Your task to perform on an android device: Go to Reddit.com Image 0: 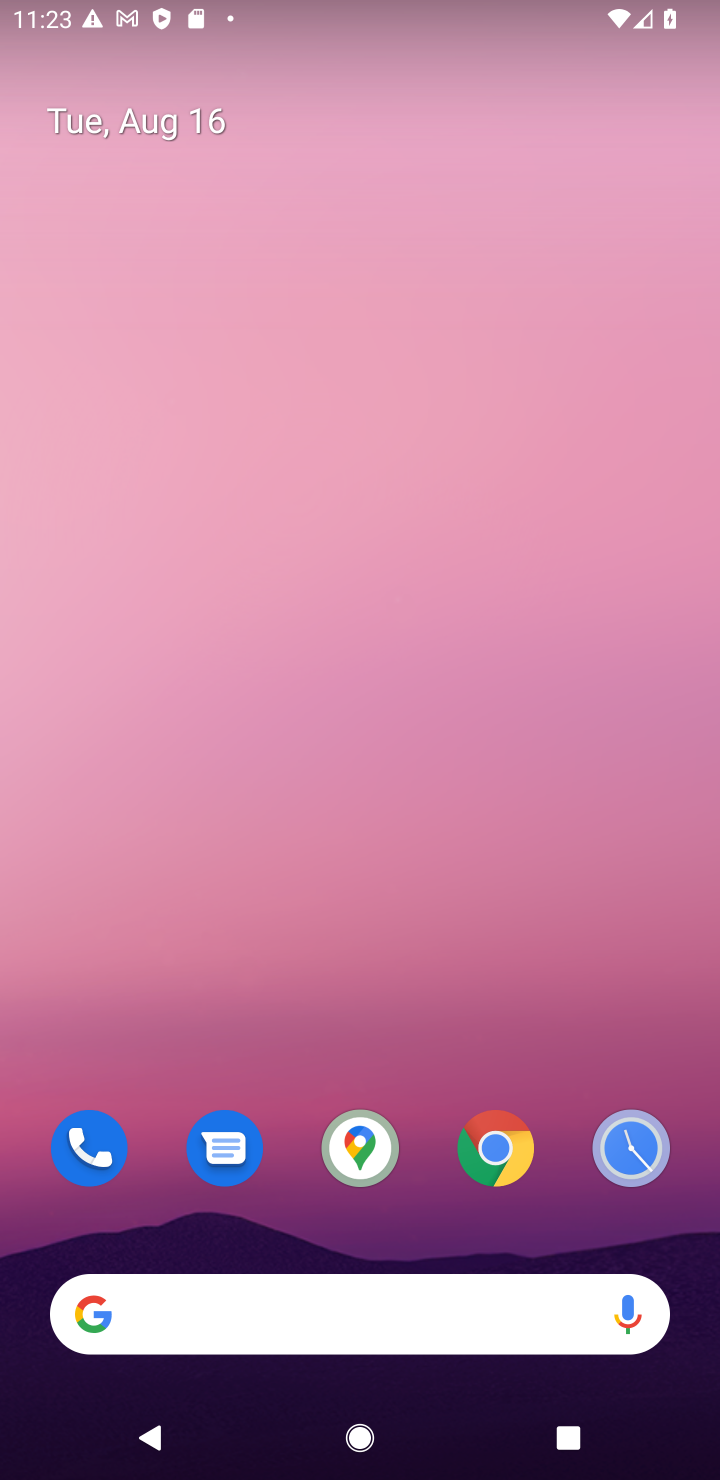
Step 0: press home button
Your task to perform on an android device: Go to Reddit.com Image 1: 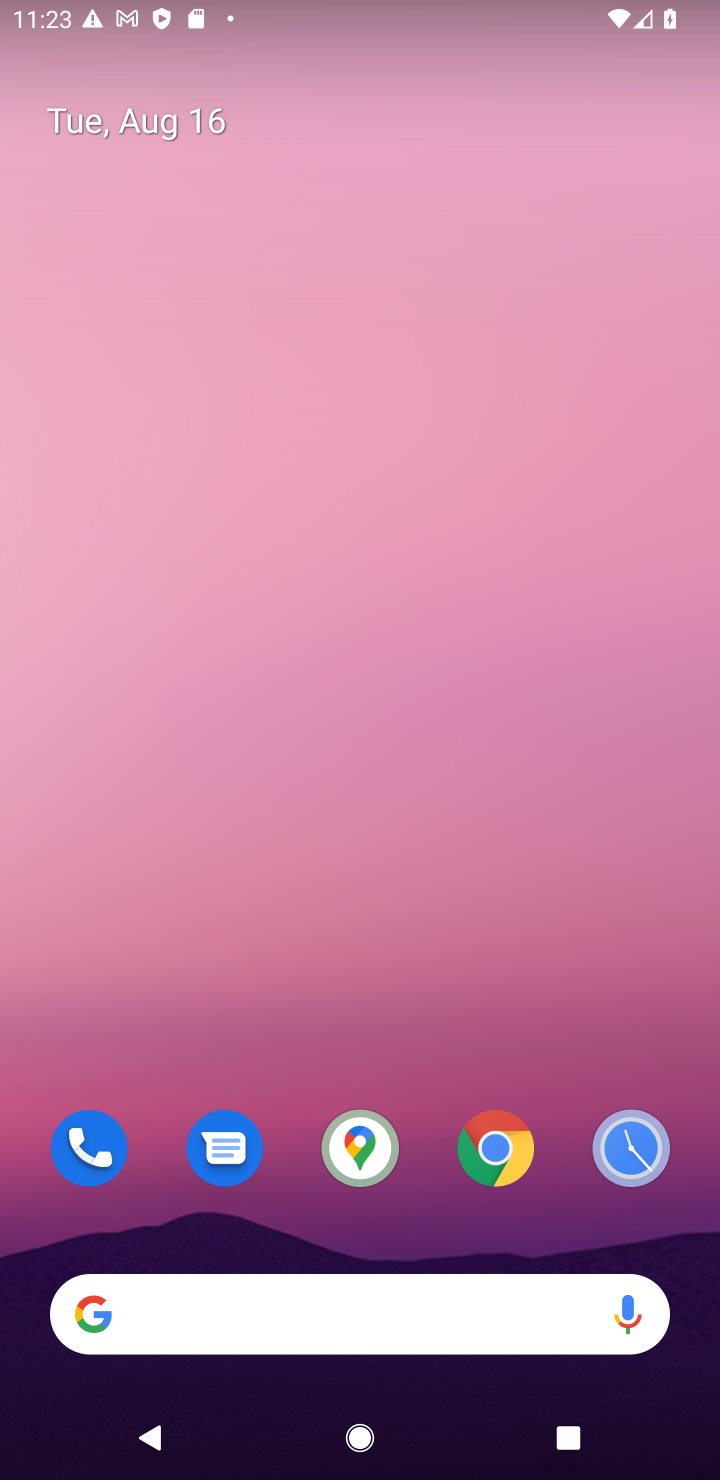
Step 1: press home button
Your task to perform on an android device: Go to Reddit.com Image 2: 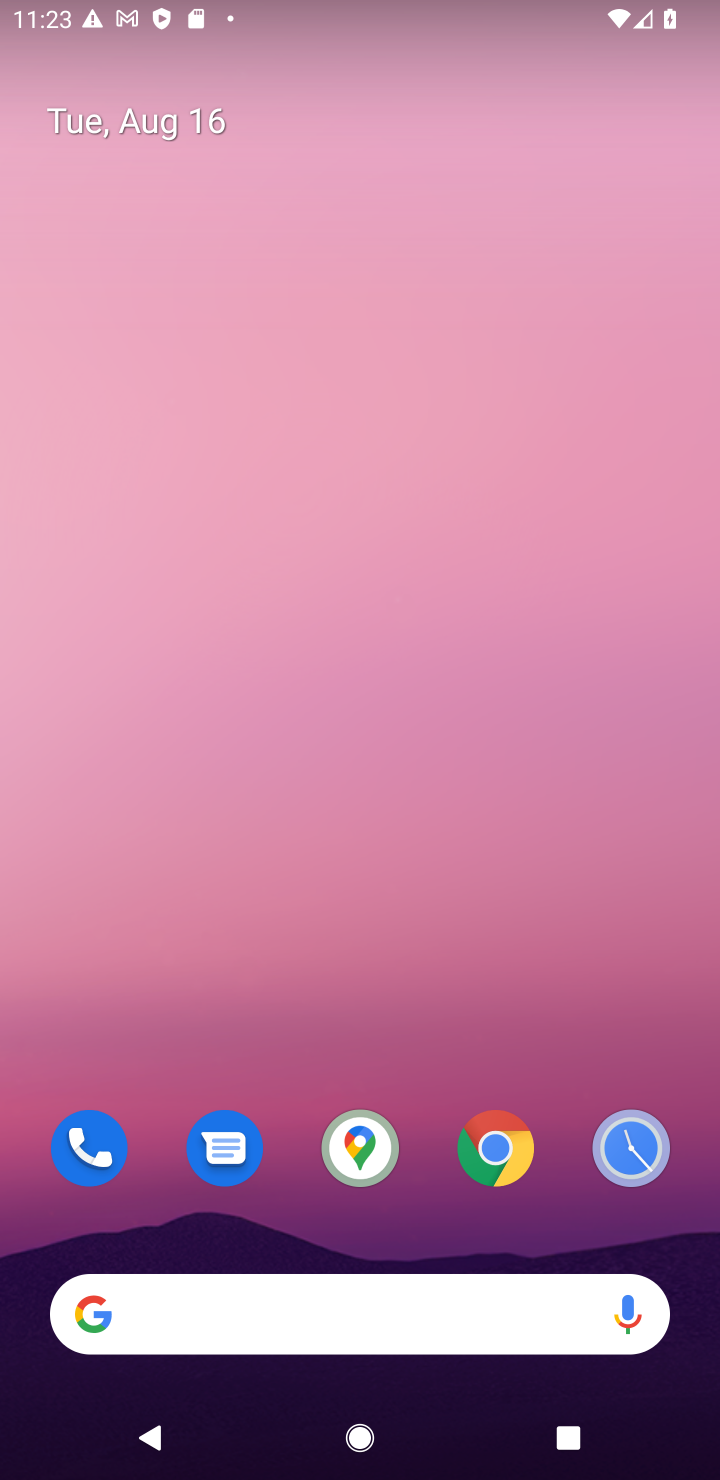
Step 2: press home button
Your task to perform on an android device: Go to Reddit.com Image 3: 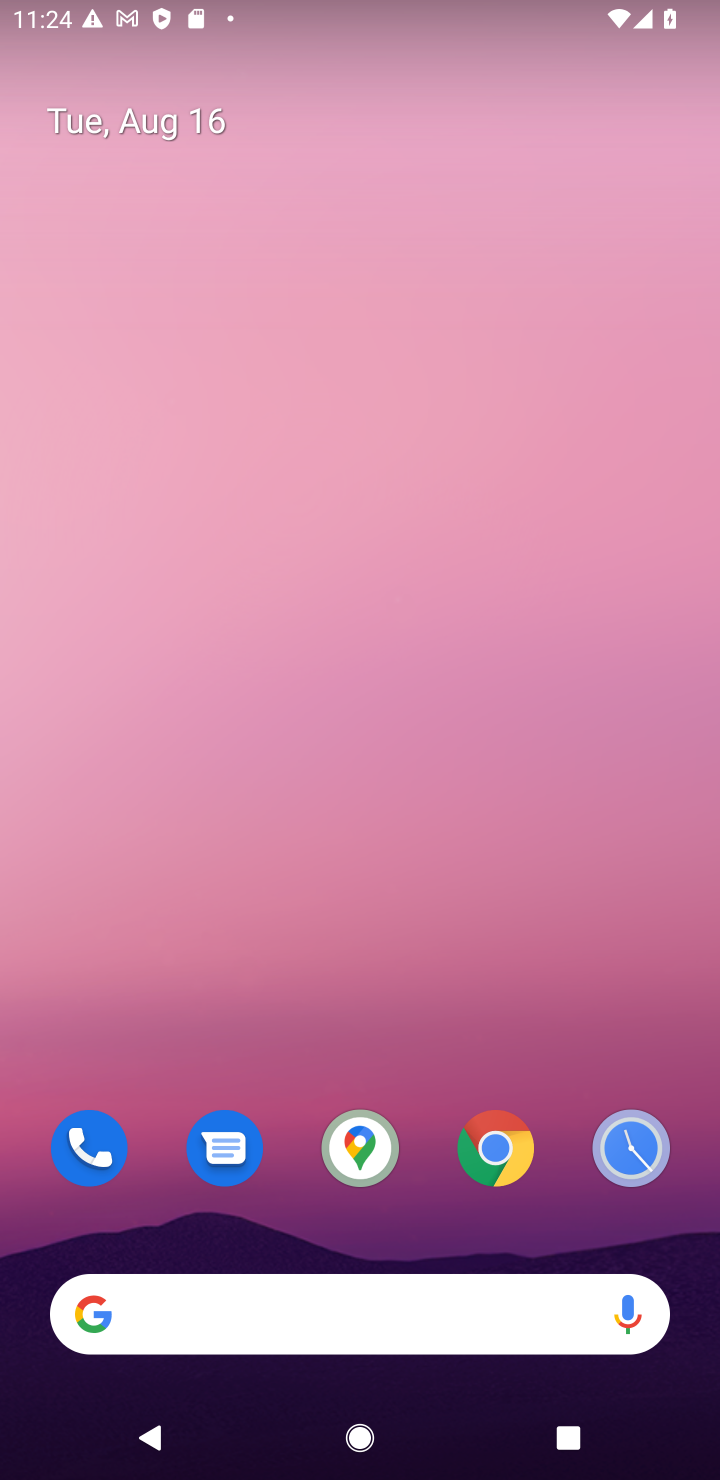
Step 3: click (483, 1137)
Your task to perform on an android device: Go to Reddit.com Image 4: 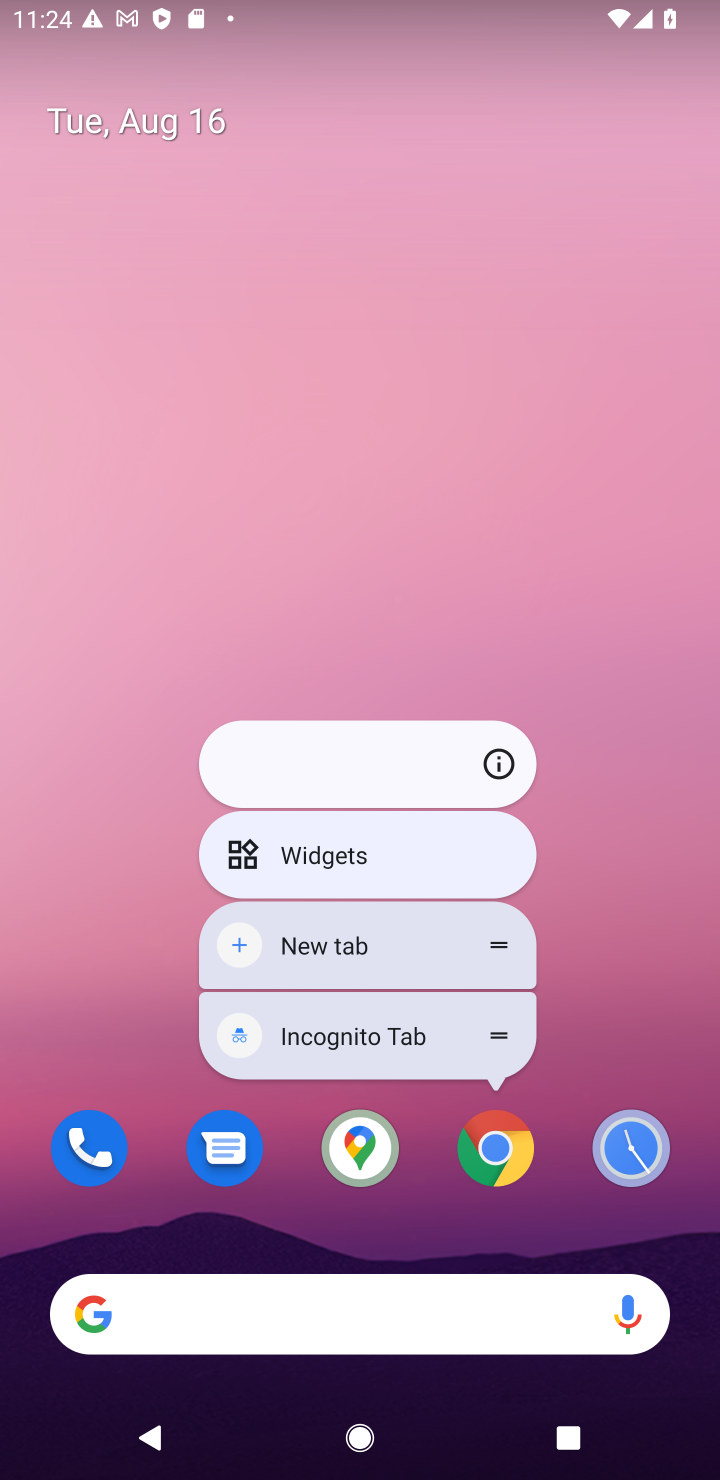
Step 4: click (485, 1148)
Your task to perform on an android device: Go to Reddit.com Image 5: 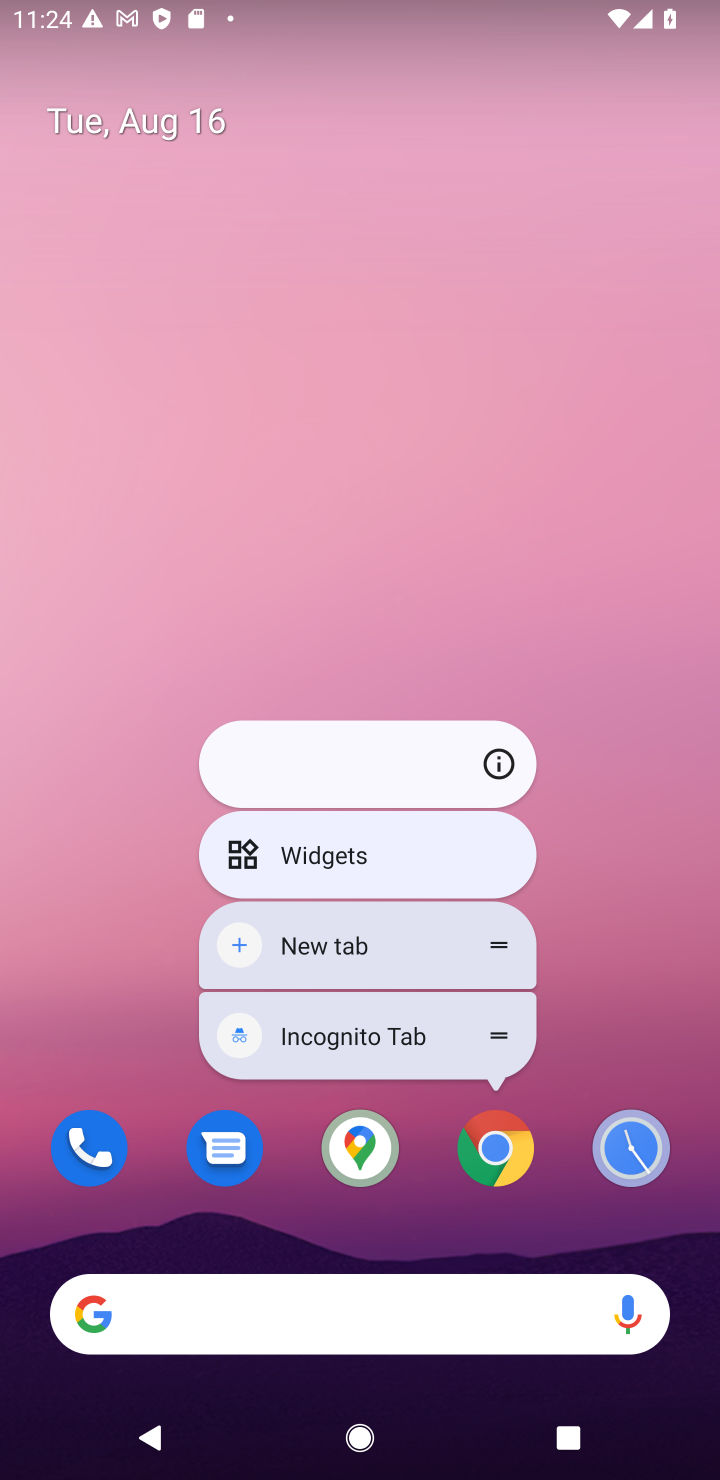
Step 5: click (514, 1148)
Your task to perform on an android device: Go to Reddit.com Image 6: 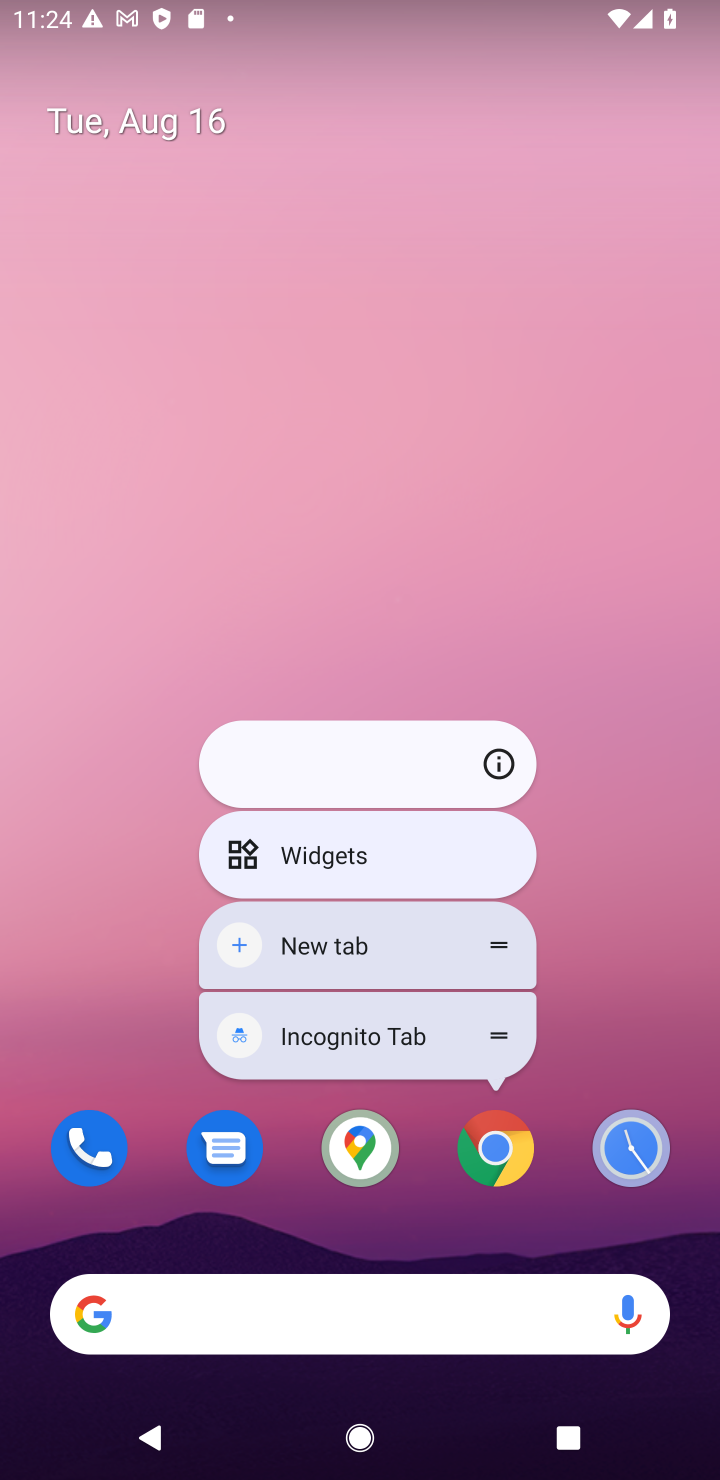
Step 6: click (514, 1148)
Your task to perform on an android device: Go to Reddit.com Image 7: 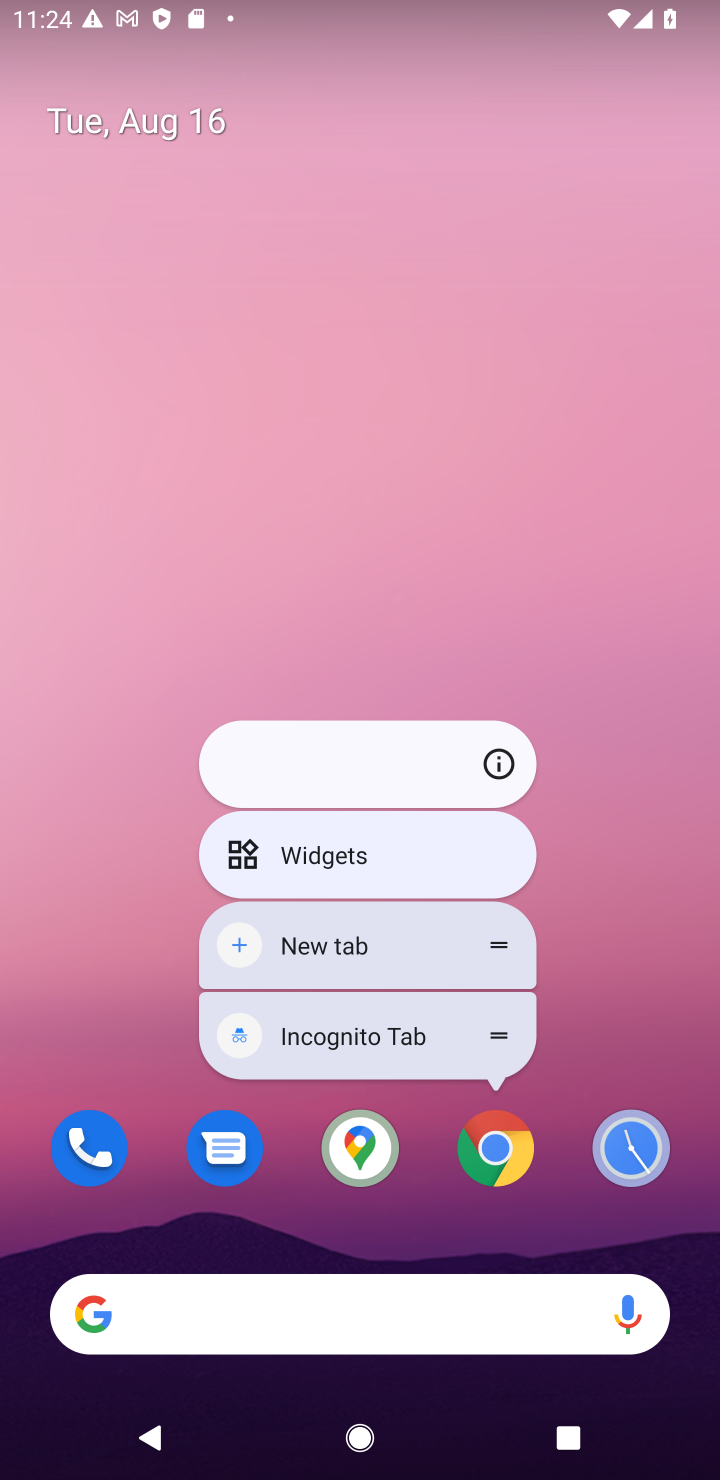
Step 7: click (514, 1148)
Your task to perform on an android device: Go to Reddit.com Image 8: 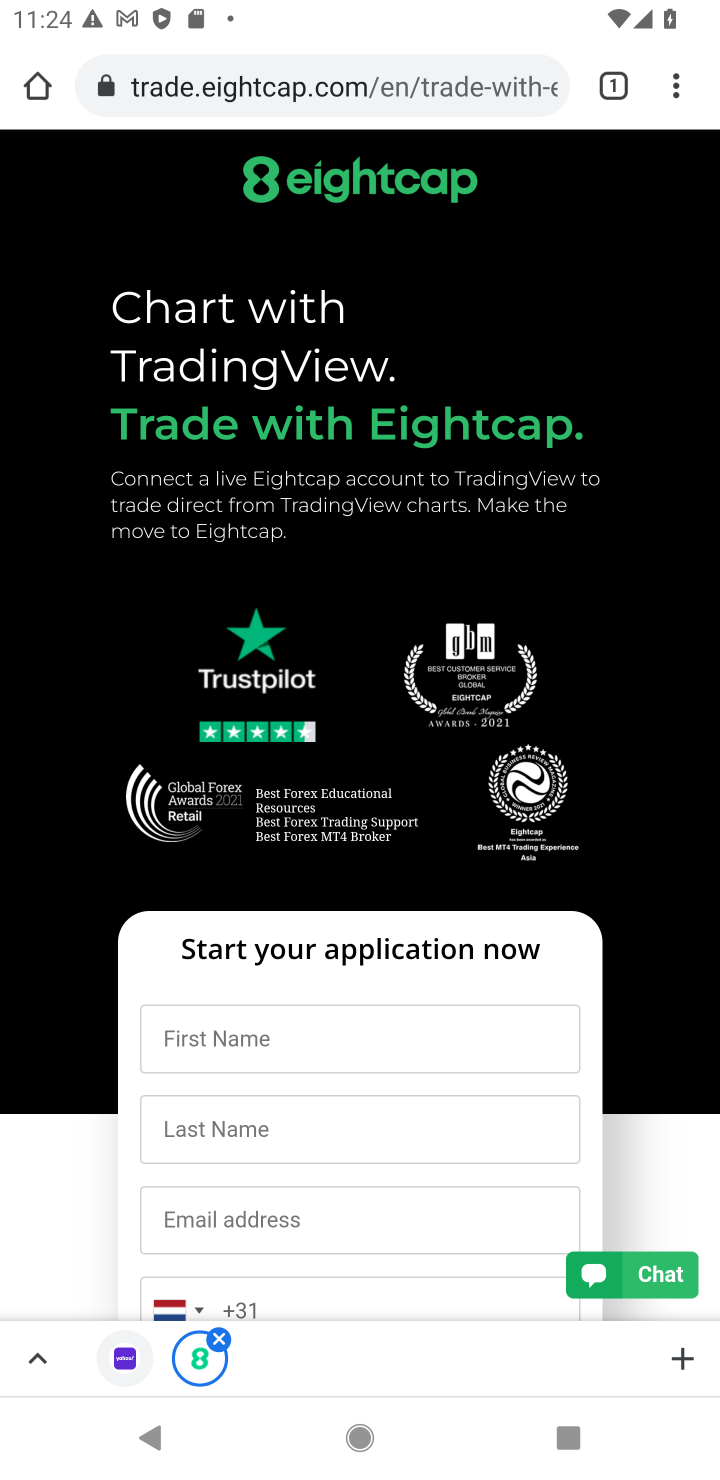
Step 8: click (246, 94)
Your task to perform on an android device: Go to Reddit.com Image 9: 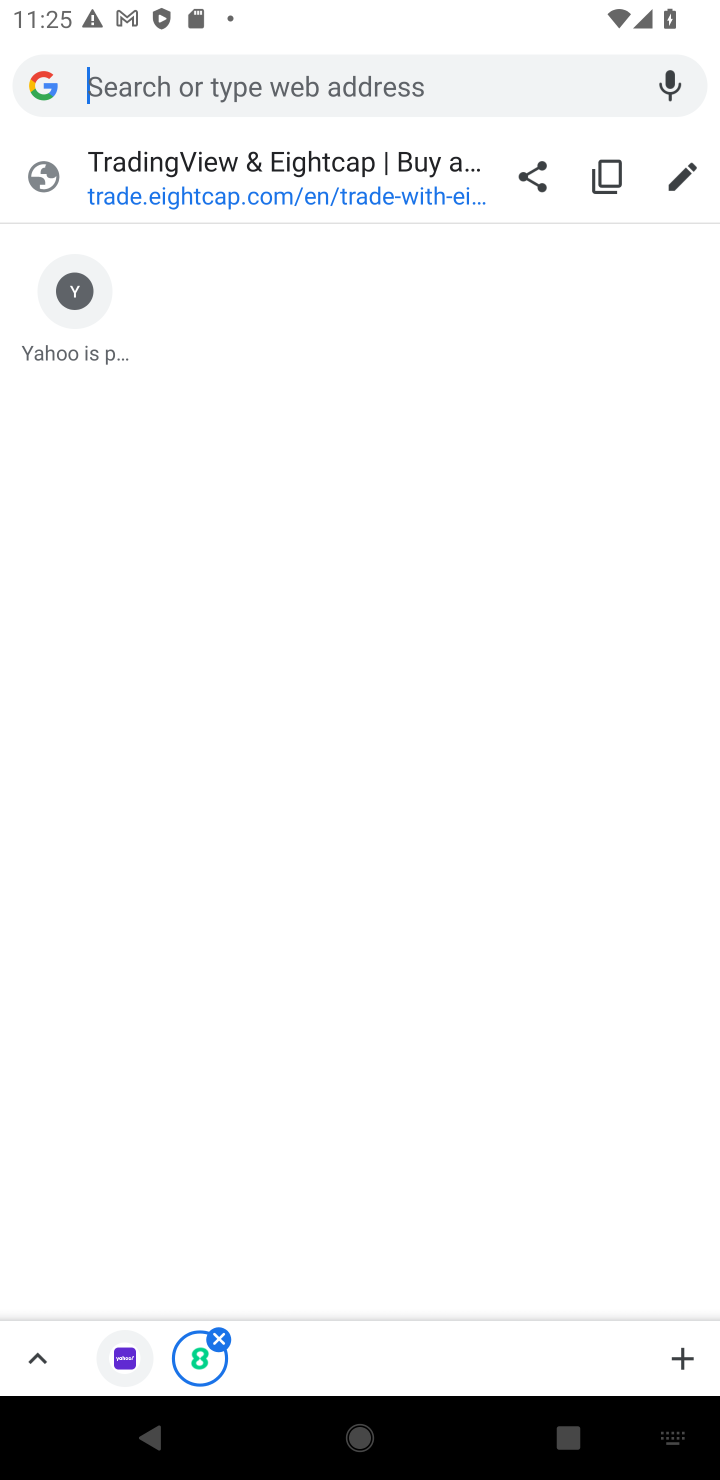
Step 9: type "Reddit.com"
Your task to perform on an android device: Go to Reddit.com Image 10: 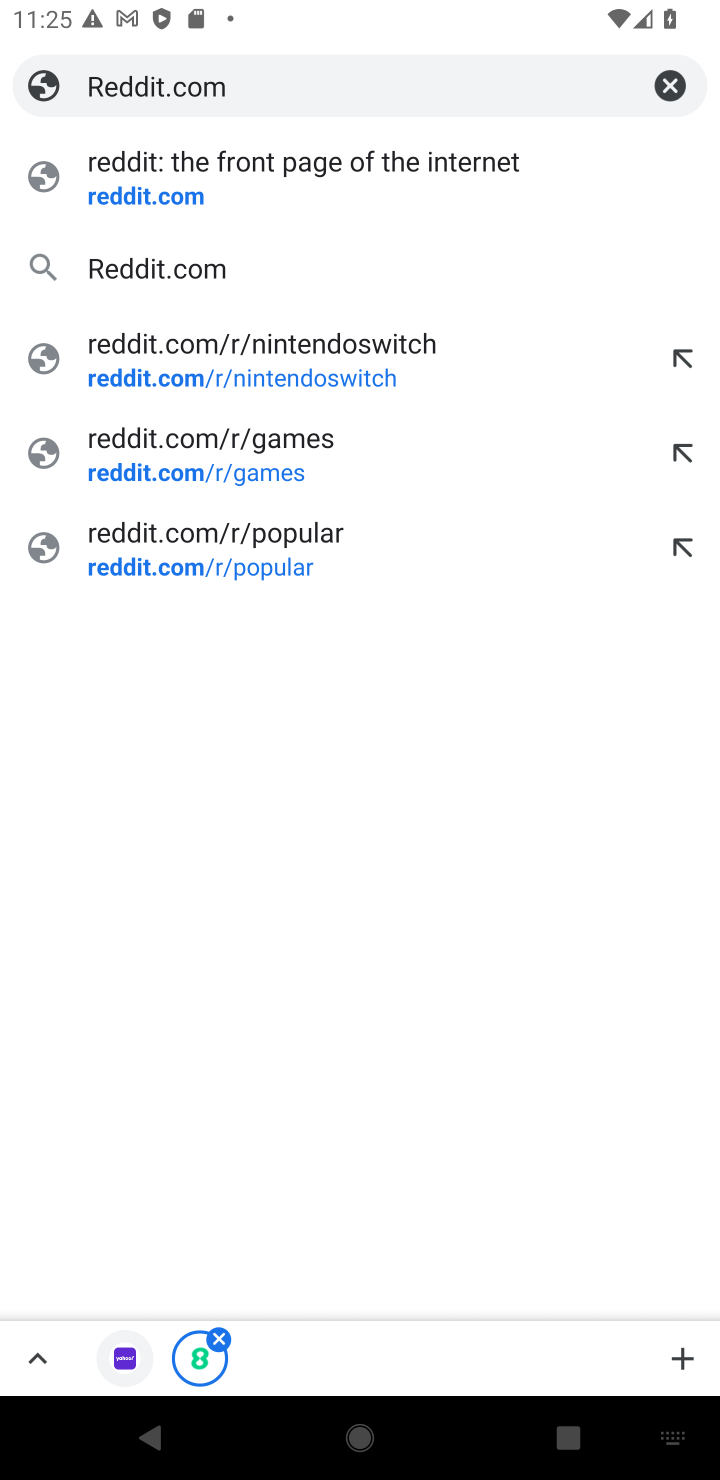
Step 10: click (156, 186)
Your task to perform on an android device: Go to Reddit.com Image 11: 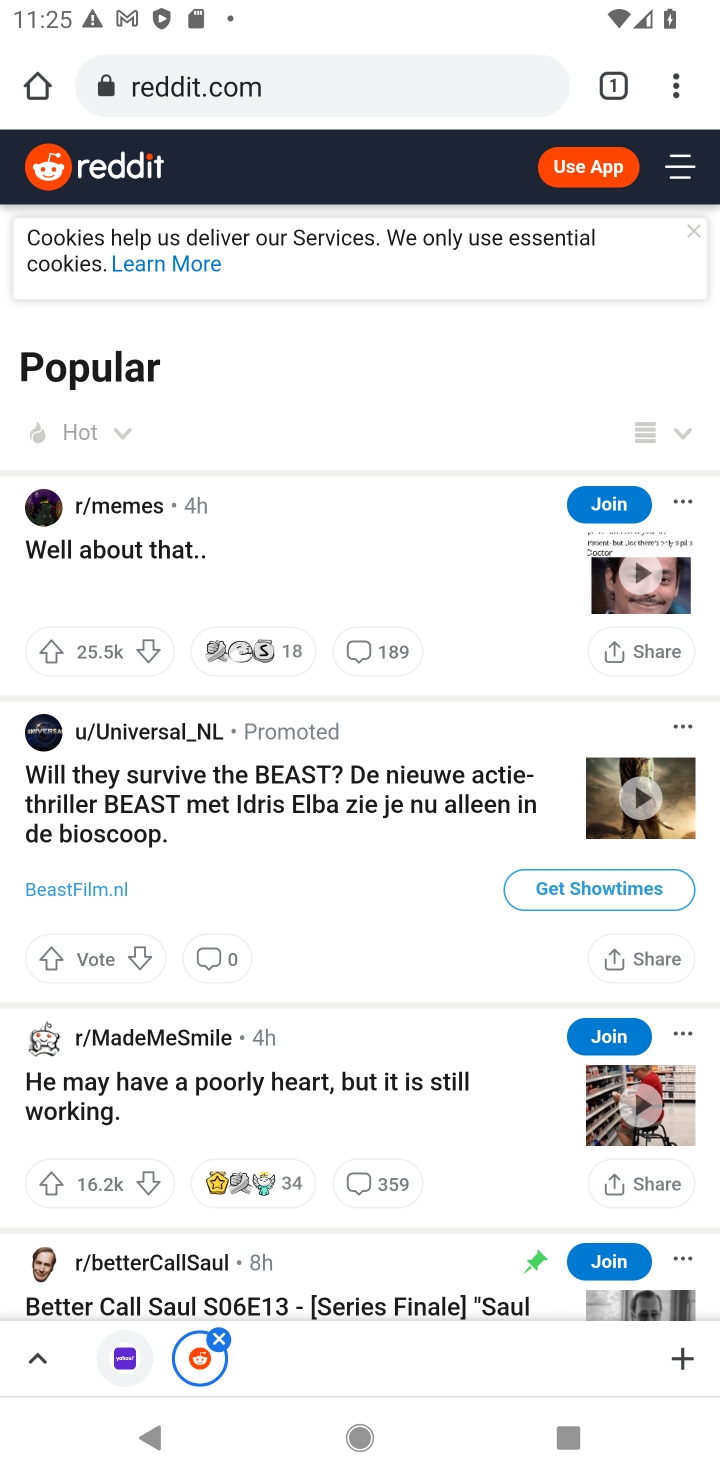
Step 11: task complete